Your task to perform on an android device: Go to display settings Image 0: 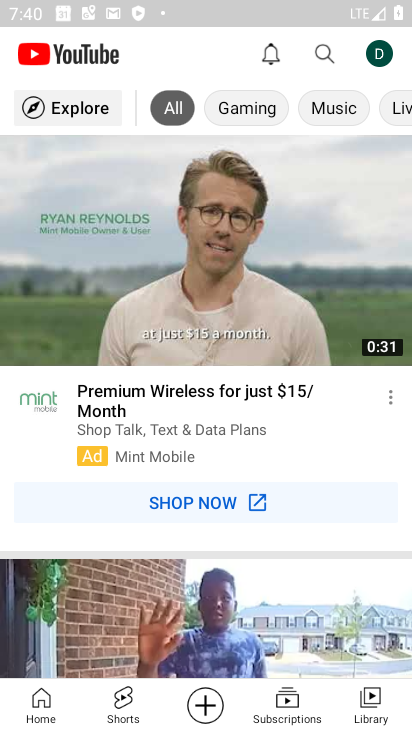
Step 0: press home button
Your task to perform on an android device: Go to display settings Image 1: 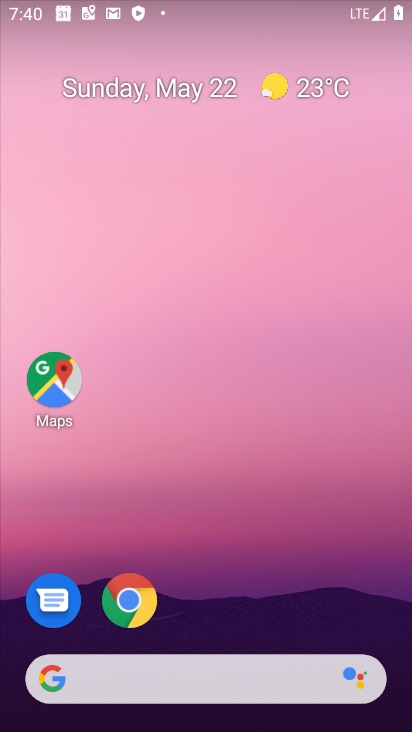
Step 1: drag from (359, 601) to (199, 189)
Your task to perform on an android device: Go to display settings Image 2: 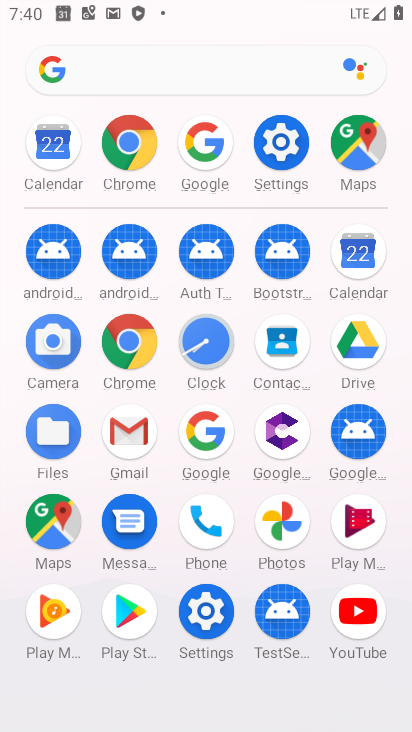
Step 2: click (224, 612)
Your task to perform on an android device: Go to display settings Image 3: 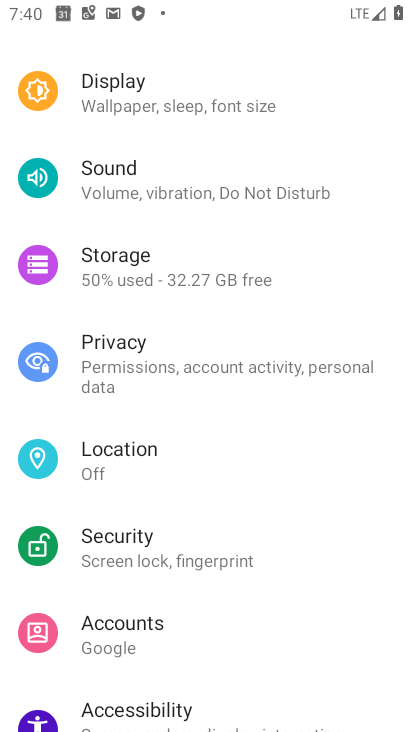
Step 3: drag from (159, 135) to (186, 495)
Your task to perform on an android device: Go to display settings Image 4: 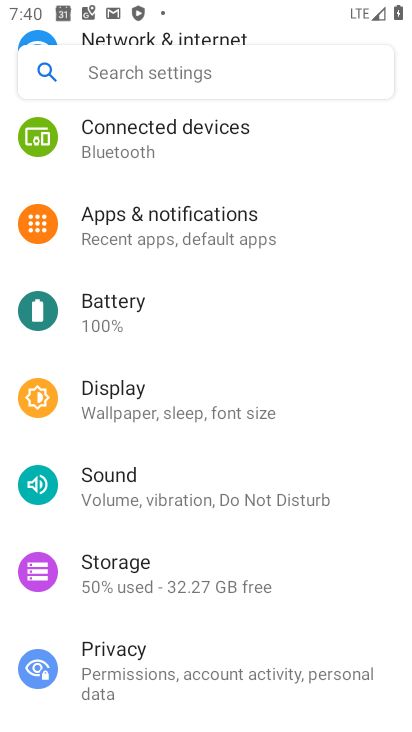
Step 4: click (130, 409)
Your task to perform on an android device: Go to display settings Image 5: 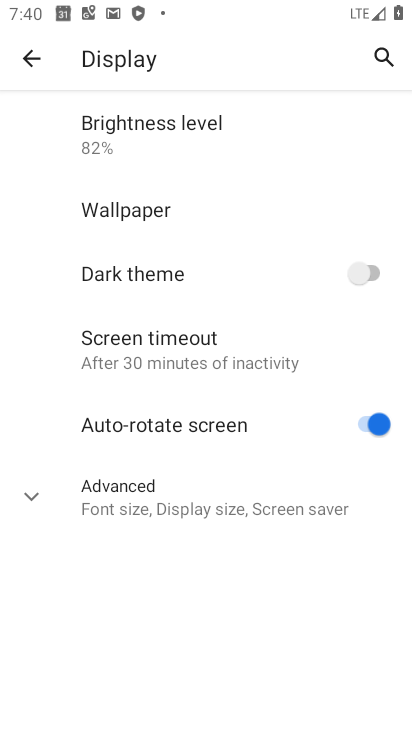
Step 5: task complete